Your task to perform on an android device: Do I have any events this weekend? Image 0: 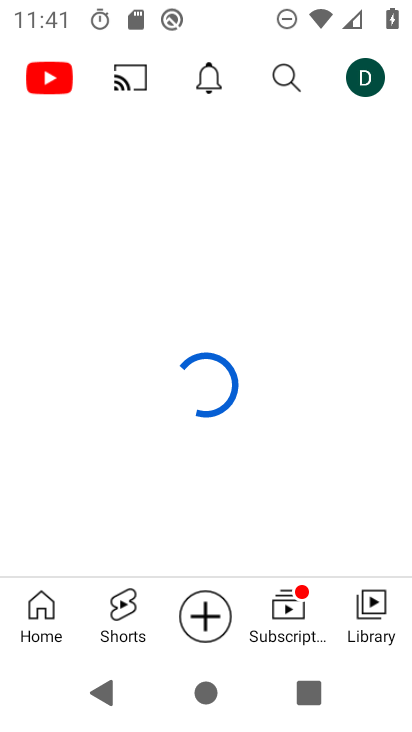
Step 0: click (263, 480)
Your task to perform on an android device: Do I have any events this weekend? Image 1: 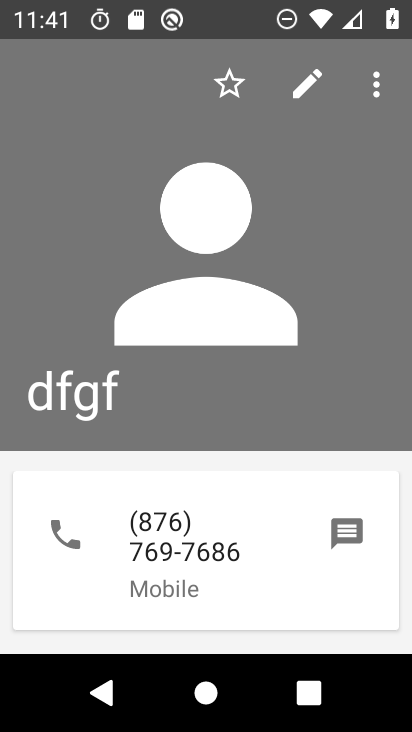
Step 1: press home button
Your task to perform on an android device: Do I have any events this weekend? Image 2: 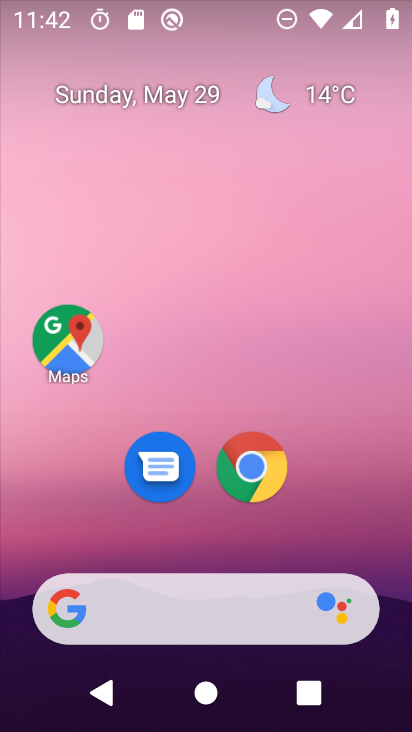
Step 2: drag from (197, 540) to (197, 158)
Your task to perform on an android device: Do I have any events this weekend? Image 3: 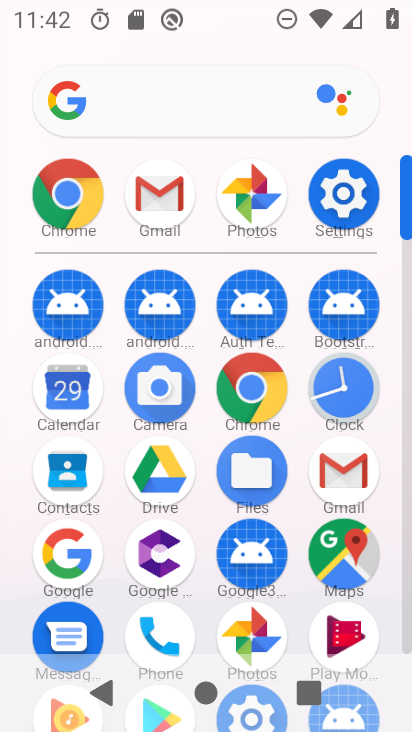
Step 3: click (75, 389)
Your task to perform on an android device: Do I have any events this weekend? Image 4: 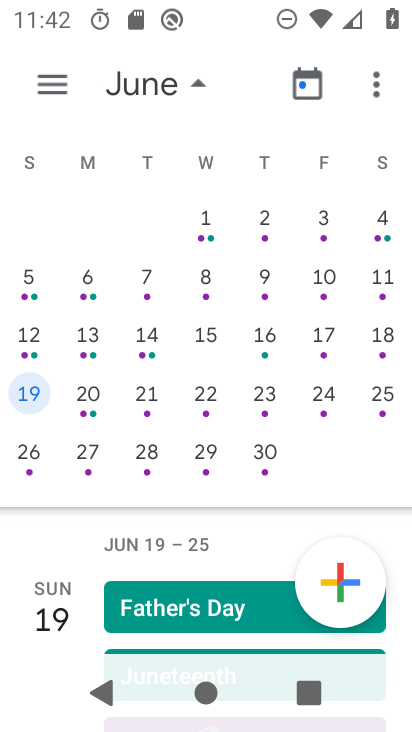
Step 4: click (201, 217)
Your task to perform on an android device: Do I have any events this weekend? Image 5: 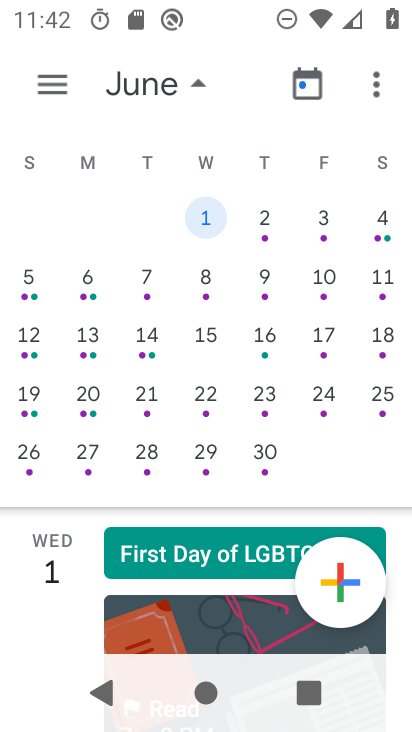
Step 5: click (262, 218)
Your task to perform on an android device: Do I have any events this weekend? Image 6: 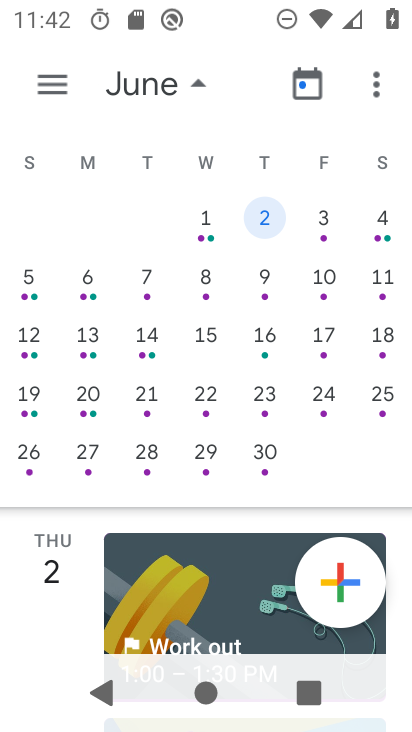
Step 6: click (307, 223)
Your task to perform on an android device: Do I have any events this weekend? Image 7: 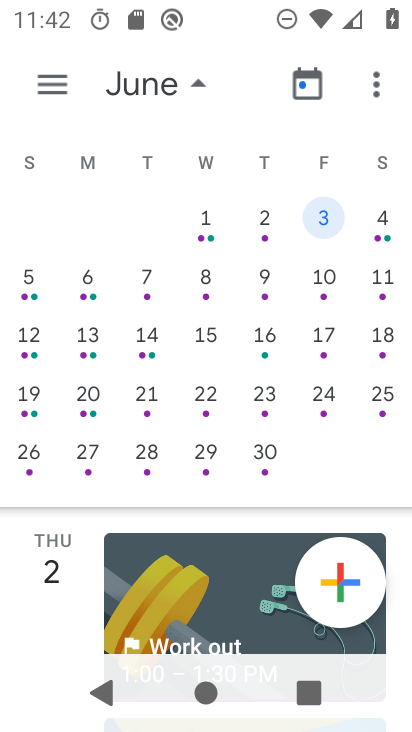
Step 7: click (375, 227)
Your task to perform on an android device: Do I have any events this weekend? Image 8: 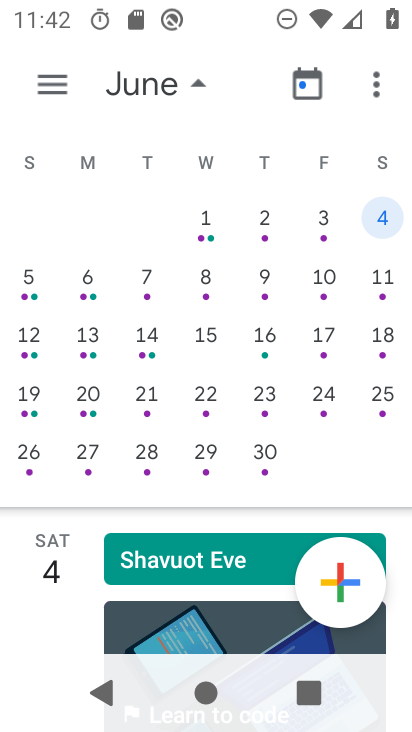
Step 8: click (27, 267)
Your task to perform on an android device: Do I have any events this weekend? Image 9: 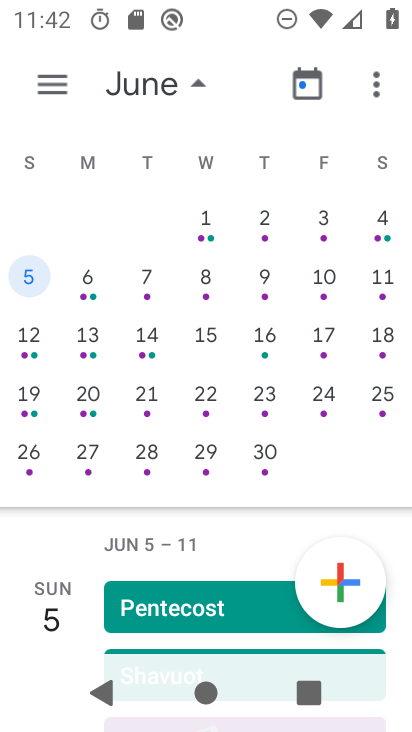
Step 9: click (386, 219)
Your task to perform on an android device: Do I have any events this weekend? Image 10: 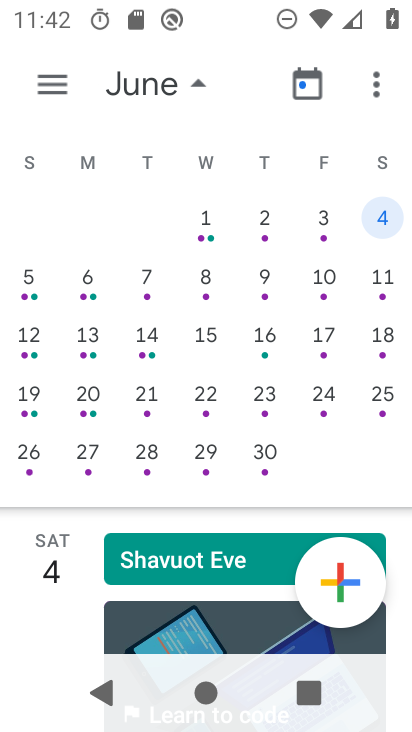
Step 10: task complete